Your task to perform on an android device: move an email to a new category in the gmail app Image 0: 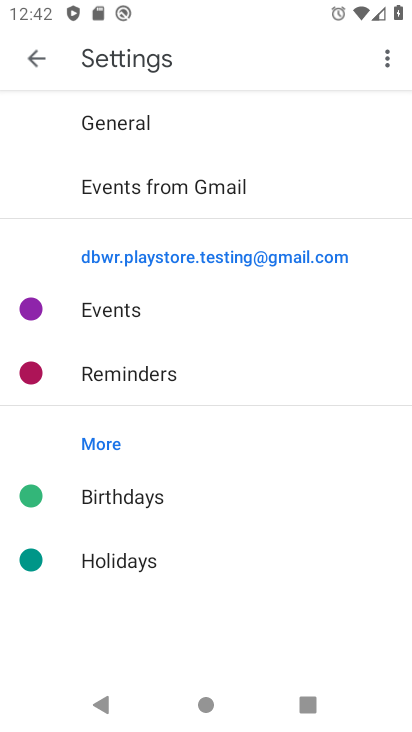
Step 0: press home button
Your task to perform on an android device: move an email to a new category in the gmail app Image 1: 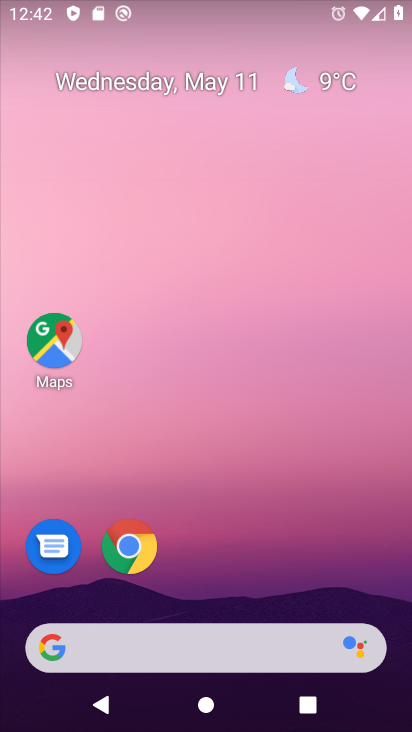
Step 1: drag from (198, 545) to (346, 61)
Your task to perform on an android device: move an email to a new category in the gmail app Image 2: 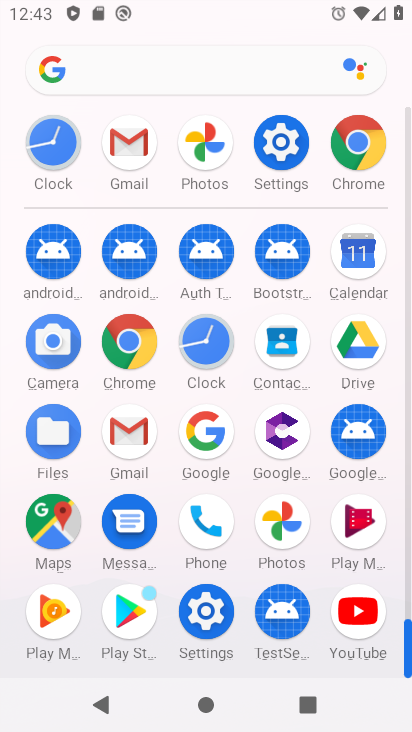
Step 2: click (126, 424)
Your task to perform on an android device: move an email to a new category in the gmail app Image 3: 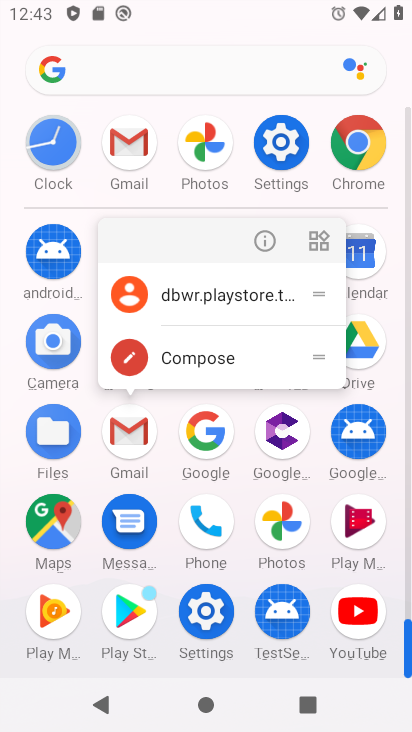
Step 3: click (269, 243)
Your task to perform on an android device: move an email to a new category in the gmail app Image 4: 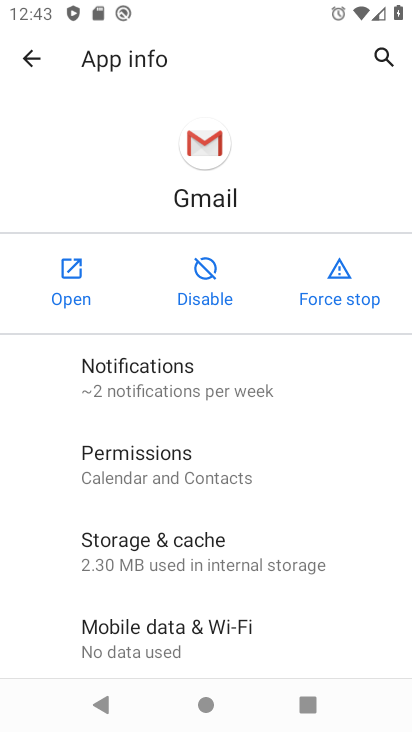
Step 4: click (79, 274)
Your task to perform on an android device: move an email to a new category in the gmail app Image 5: 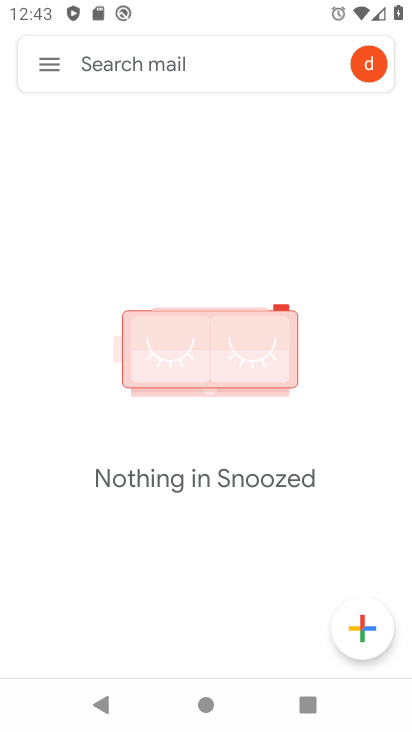
Step 5: click (209, 475)
Your task to perform on an android device: move an email to a new category in the gmail app Image 6: 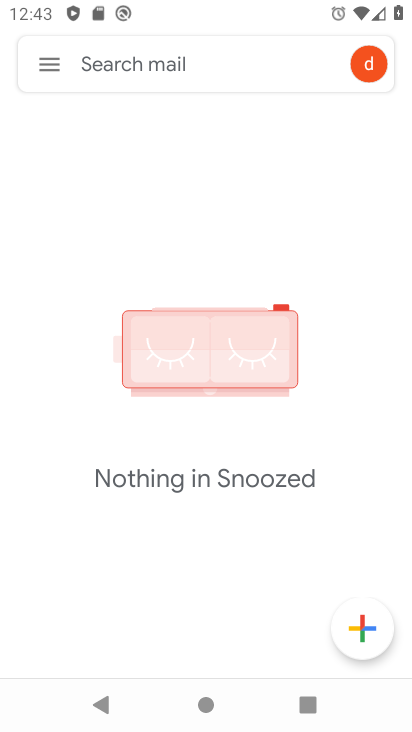
Step 6: task complete